Your task to perform on an android device: set the timer Image 0: 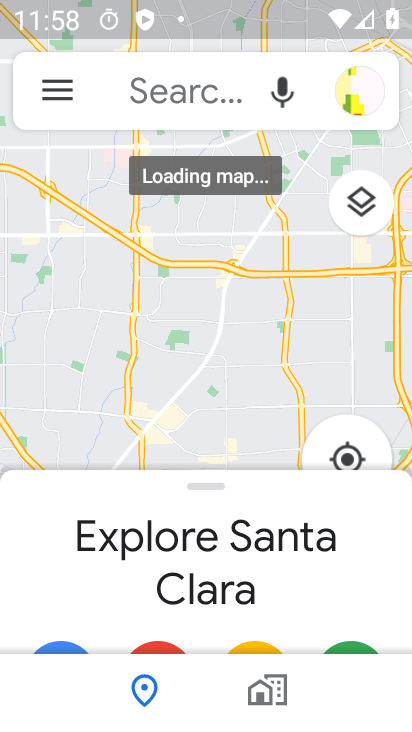
Step 0: press home button
Your task to perform on an android device: set the timer Image 1: 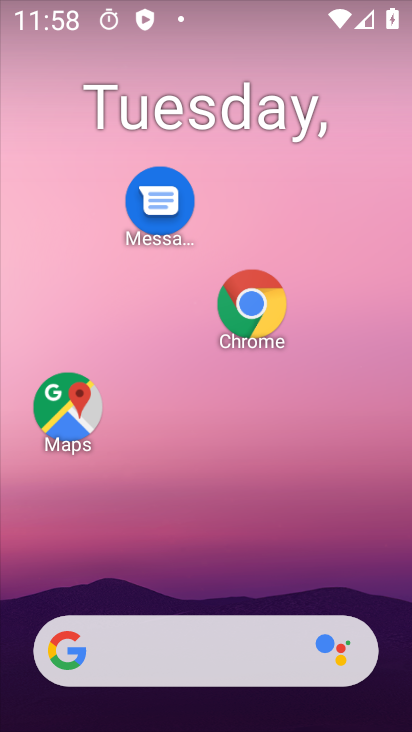
Step 1: drag from (213, 439) to (255, 164)
Your task to perform on an android device: set the timer Image 2: 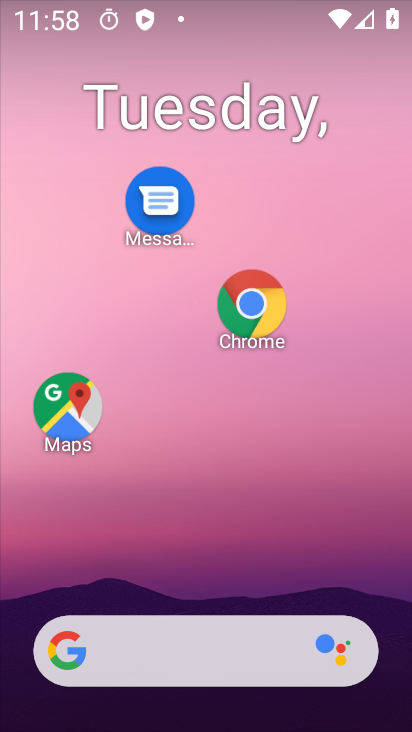
Step 2: drag from (186, 460) to (210, 75)
Your task to perform on an android device: set the timer Image 3: 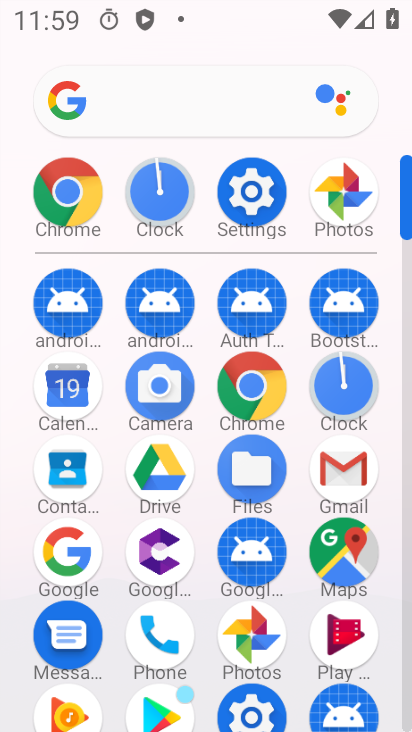
Step 3: click (162, 194)
Your task to perform on an android device: set the timer Image 4: 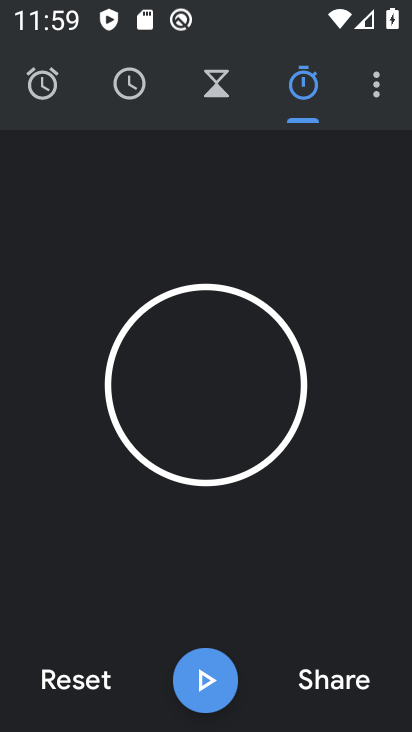
Step 4: click (218, 85)
Your task to perform on an android device: set the timer Image 5: 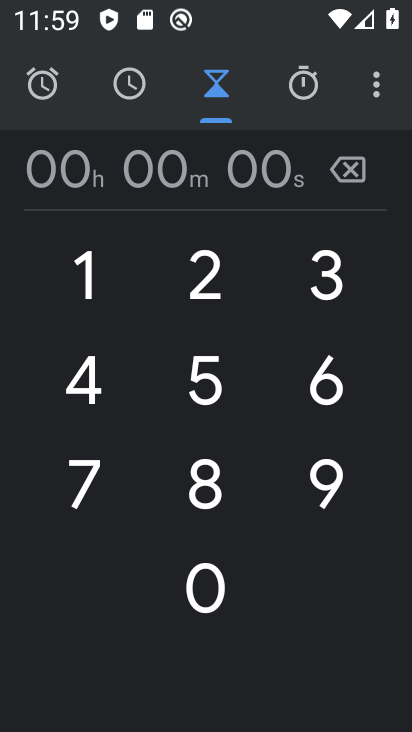
Step 5: click (34, 148)
Your task to perform on an android device: set the timer Image 6: 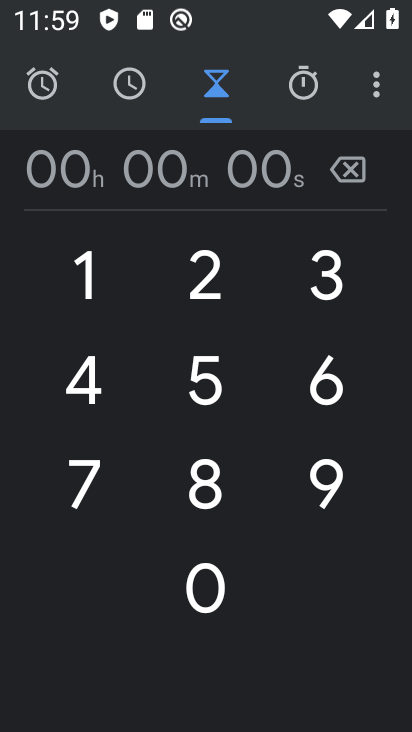
Step 6: type "09"
Your task to perform on an android device: set the timer Image 7: 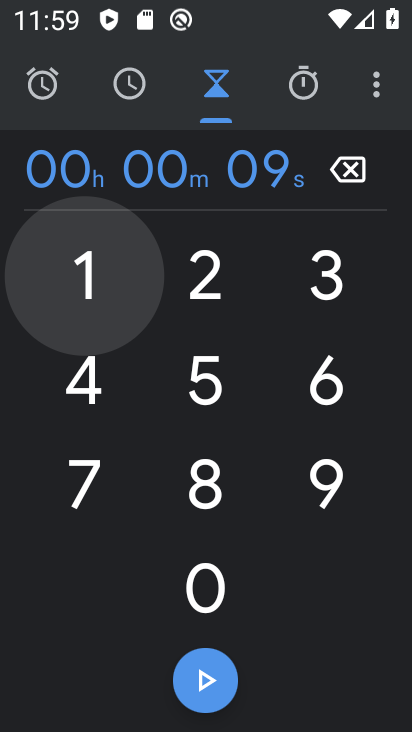
Step 7: type "99"
Your task to perform on an android device: set the timer Image 8: 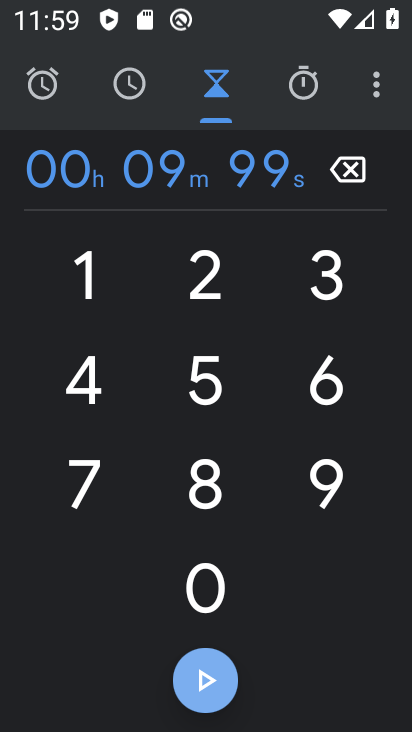
Step 8: type "7"
Your task to perform on an android device: set the timer Image 9: 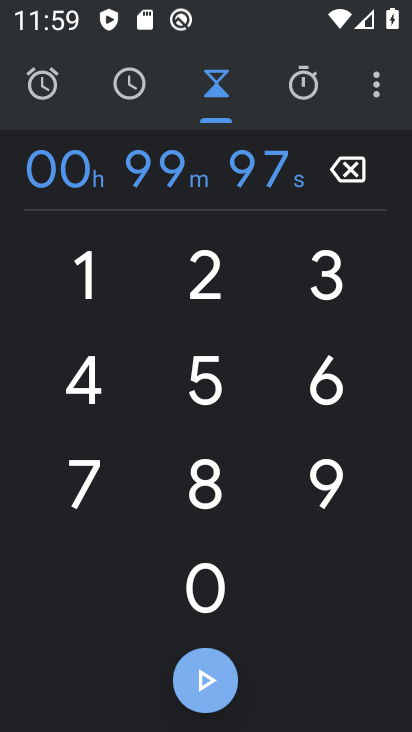
Step 9: type "8"
Your task to perform on an android device: set the timer Image 10: 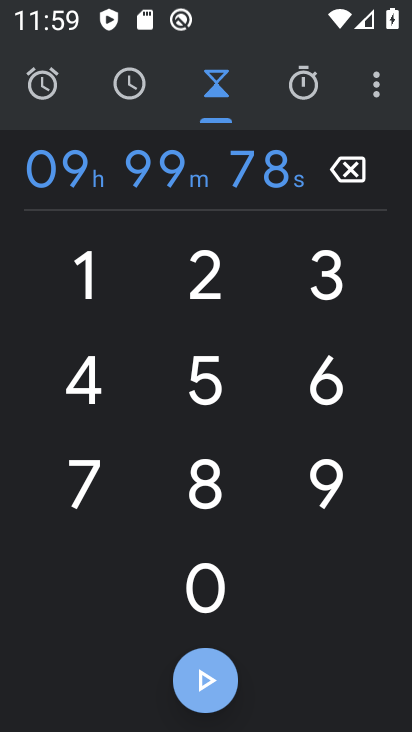
Step 10: click (183, 686)
Your task to perform on an android device: set the timer Image 11: 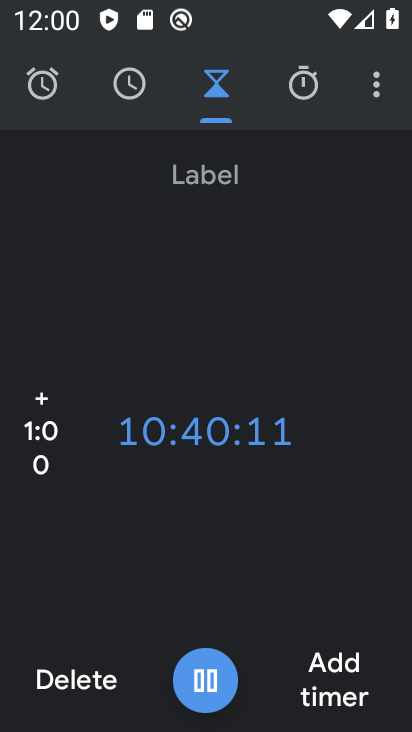
Step 11: click (194, 684)
Your task to perform on an android device: set the timer Image 12: 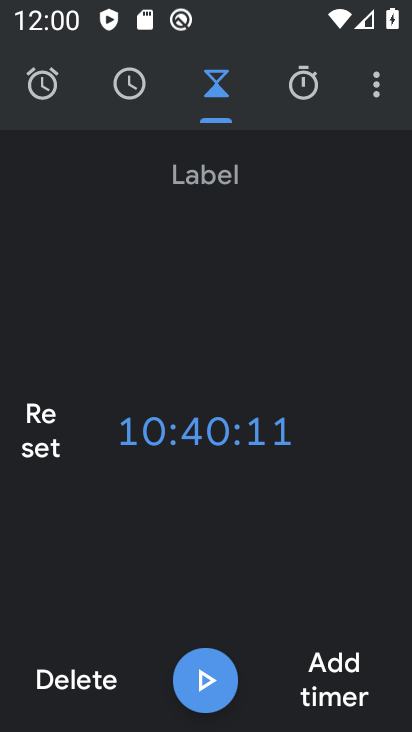
Step 12: task complete